Your task to perform on an android device: What's the weather going to be tomorrow? Image 0: 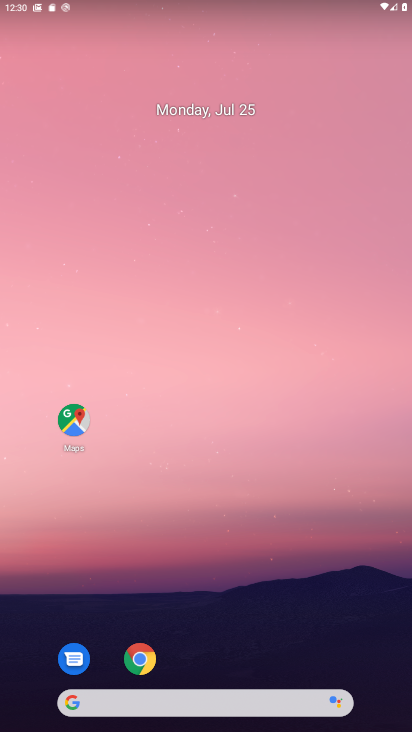
Step 0: click (141, 656)
Your task to perform on an android device: What's the weather going to be tomorrow? Image 1: 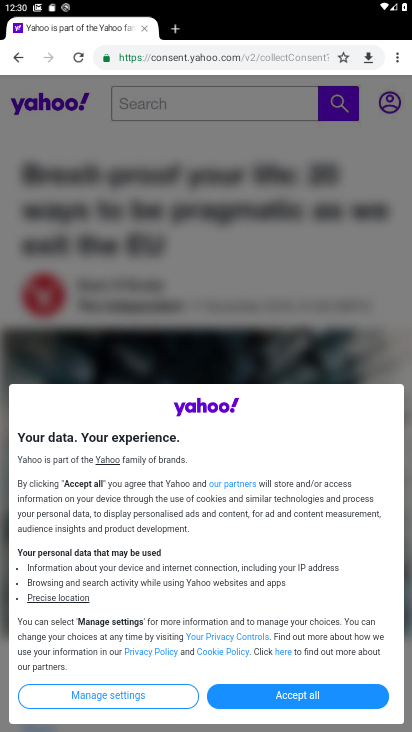
Step 1: click (234, 52)
Your task to perform on an android device: What's the weather going to be tomorrow? Image 2: 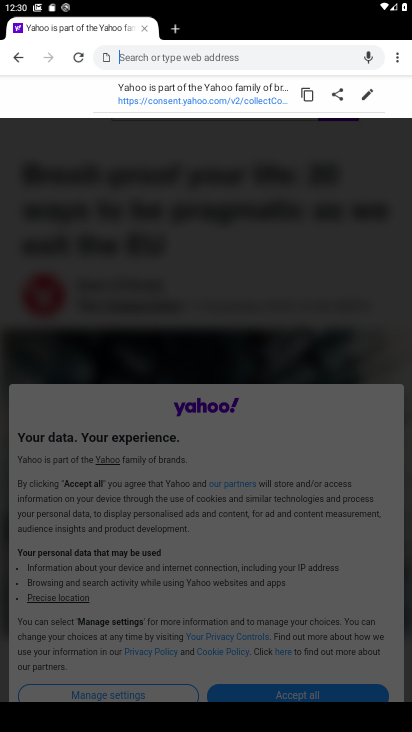
Step 2: type "What's the weather going to be tomorrow?"
Your task to perform on an android device: What's the weather going to be tomorrow? Image 3: 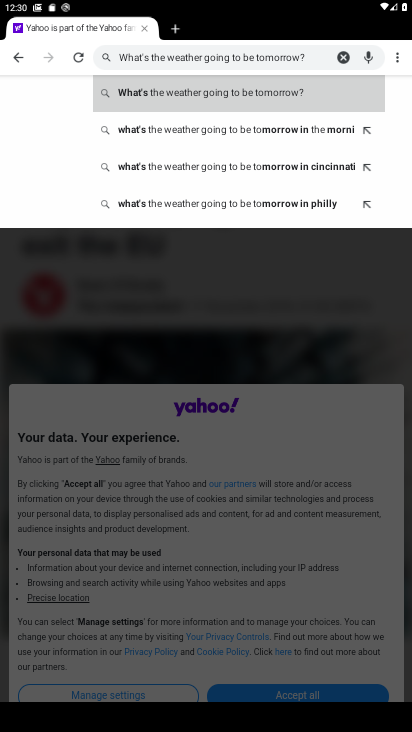
Step 3: click (294, 97)
Your task to perform on an android device: What's the weather going to be tomorrow? Image 4: 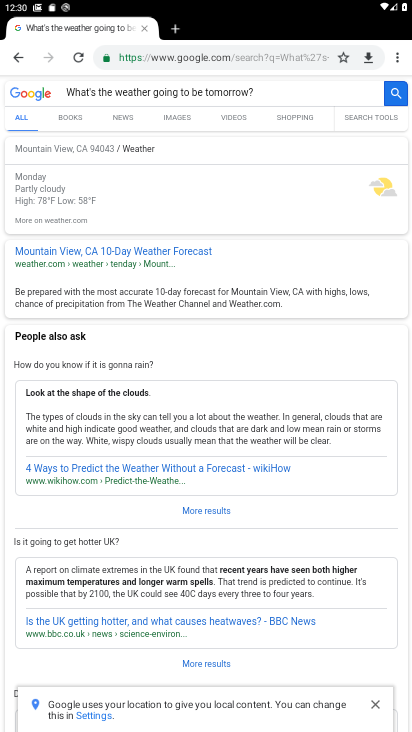
Step 4: task complete